Your task to perform on an android device: show emergency info Image 0: 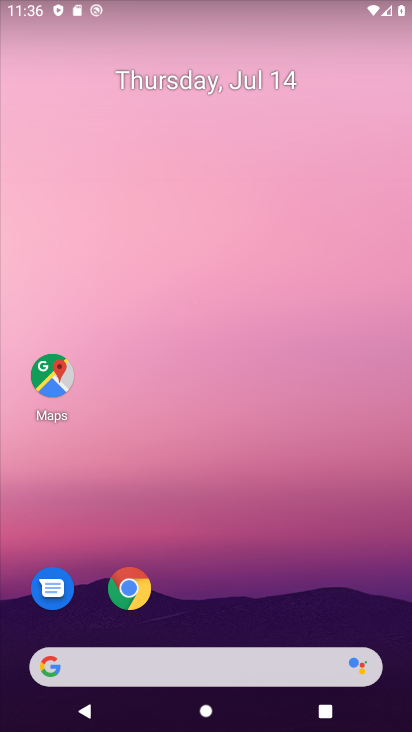
Step 0: drag from (260, 567) to (373, 46)
Your task to perform on an android device: show emergency info Image 1: 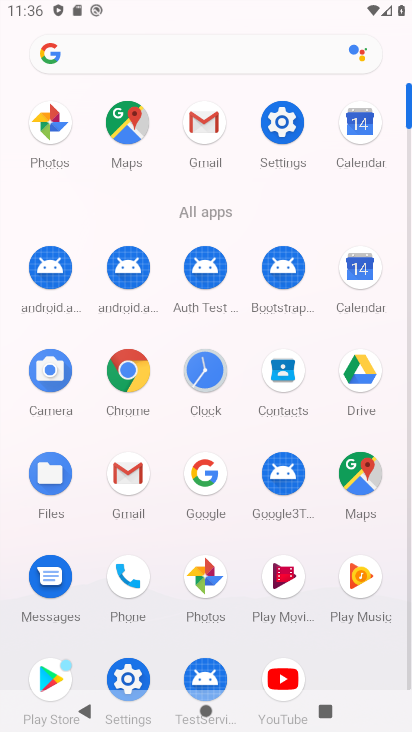
Step 1: click (293, 120)
Your task to perform on an android device: show emergency info Image 2: 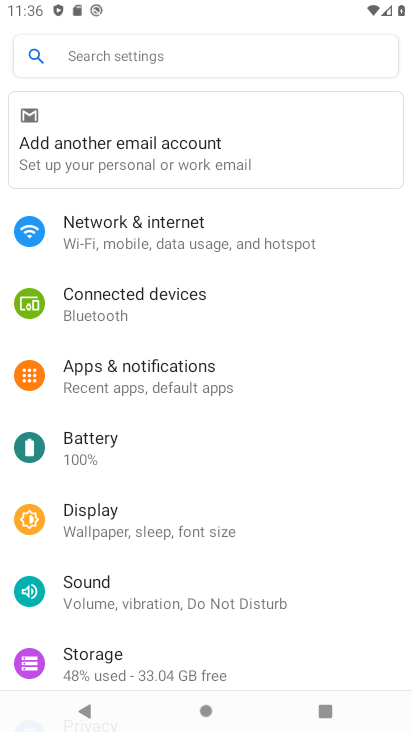
Step 2: drag from (304, 626) to (262, 18)
Your task to perform on an android device: show emergency info Image 3: 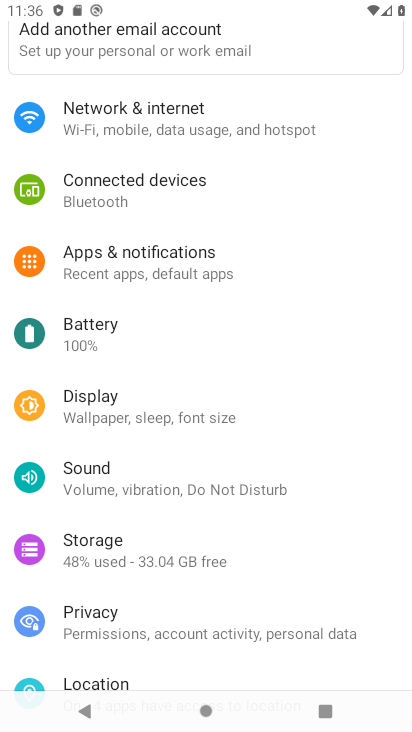
Step 3: drag from (102, 607) to (287, 58)
Your task to perform on an android device: show emergency info Image 4: 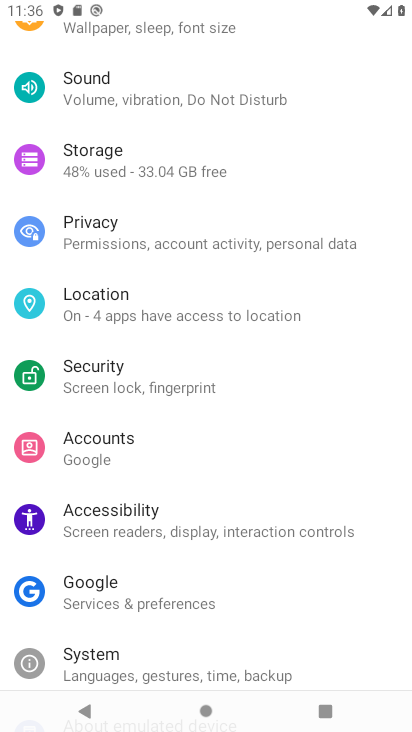
Step 4: drag from (269, 605) to (284, 139)
Your task to perform on an android device: show emergency info Image 5: 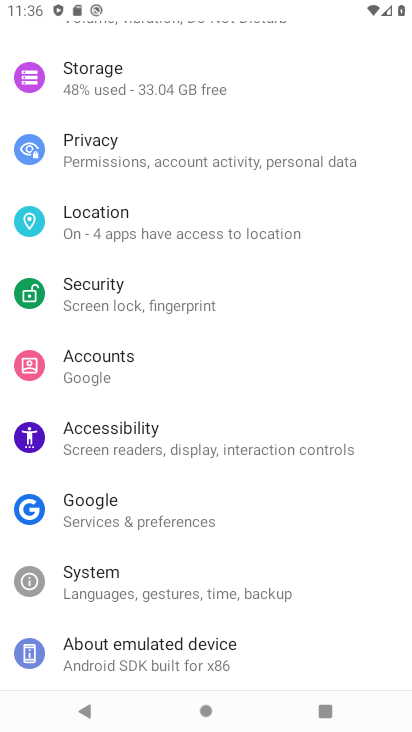
Step 5: drag from (331, 553) to (309, 55)
Your task to perform on an android device: show emergency info Image 6: 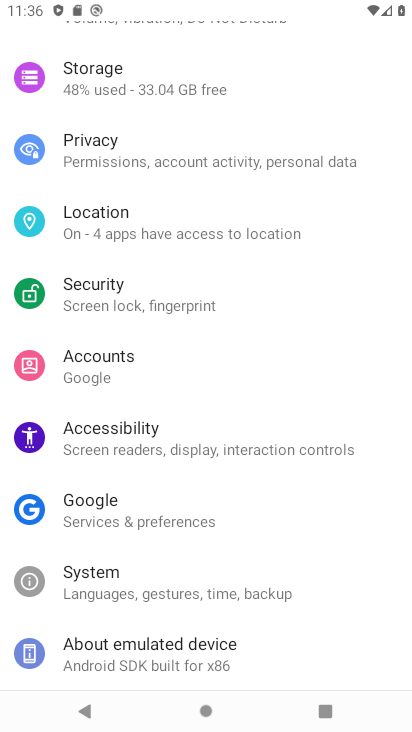
Step 6: click (235, 654)
Your task to perform on an android device: show emergency info Image 7: 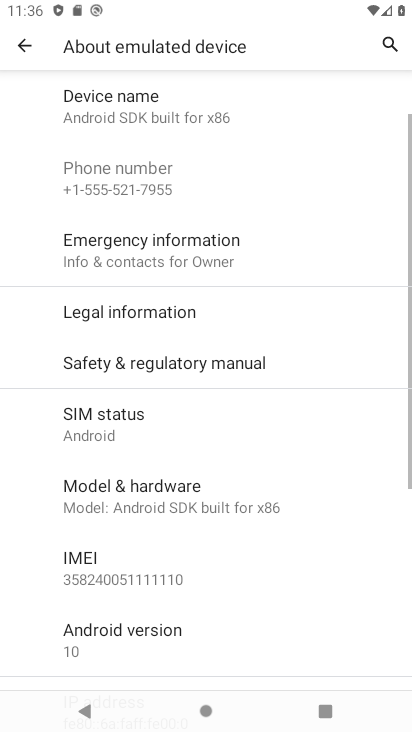
Step 7: click (213, 262)
Your task to perform on an android device: show emergency info Image 8: 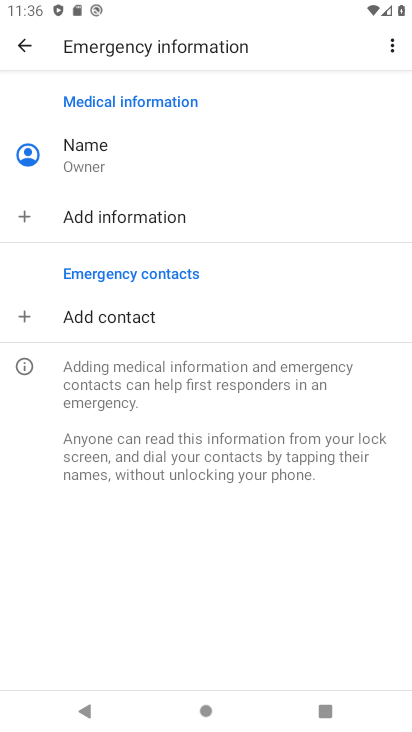
Step 8: task complete